Your task to perform on an android device: Open the stopwatch Image 0: 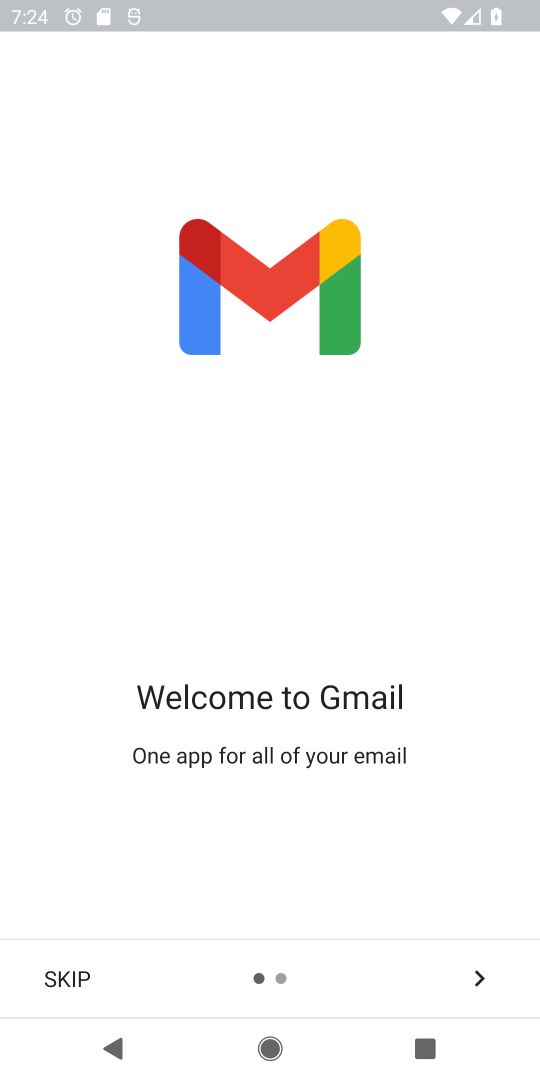
Step 0: press home button
Your task to perform on an android device: Open the stopwatch Image 1: 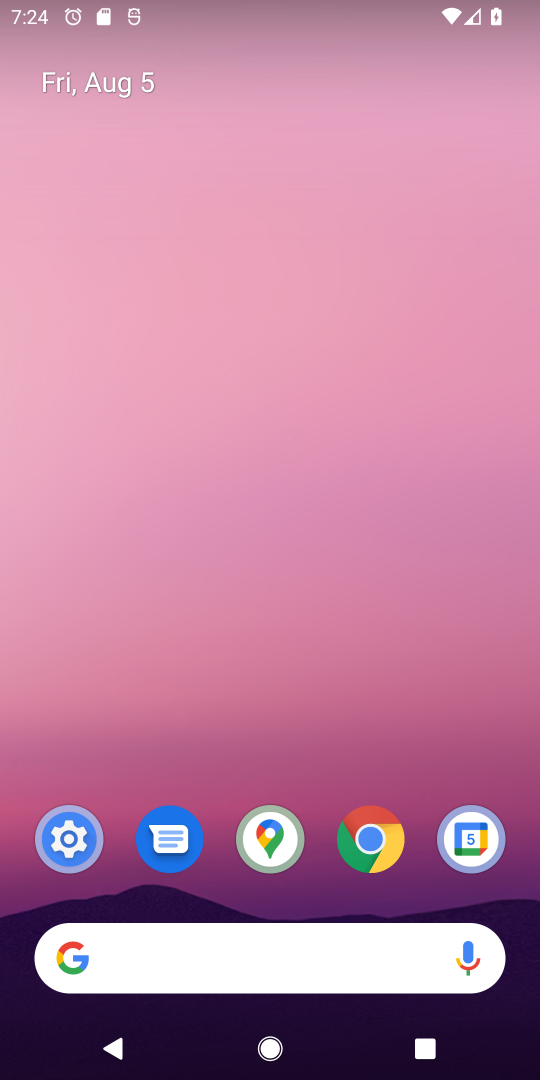
Step 1: drag from (287, 728) to (306, 124)
Your task to perform on an android device: Open the stopwatch Image 2: 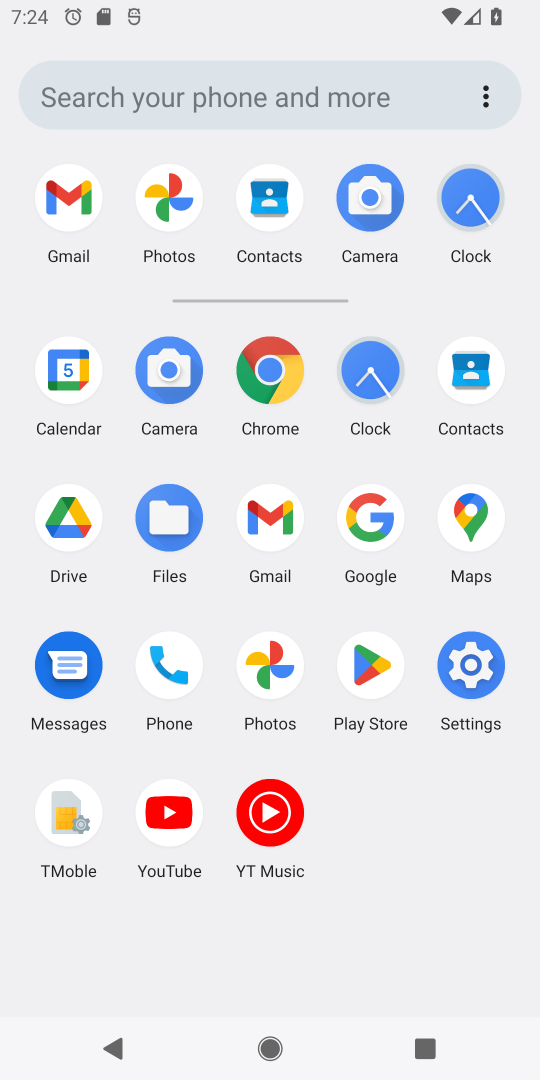
Step 2: click (455, 204)
Your task to perform on an android device: Open the stopwatch Image 3: 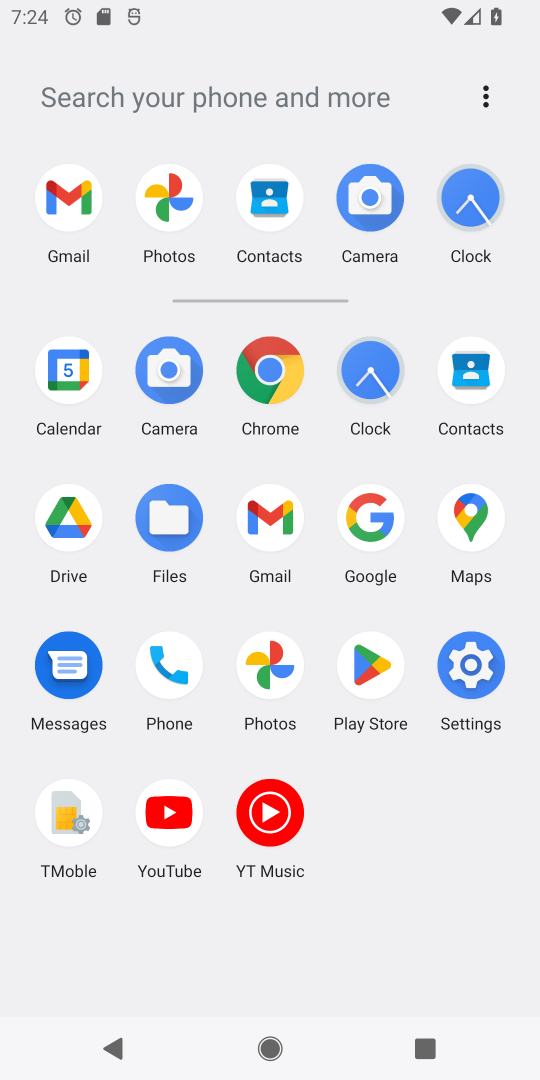
Step 3: click (461, 194)
Your task to perform on an android device: Open the stopwatch Image 4: 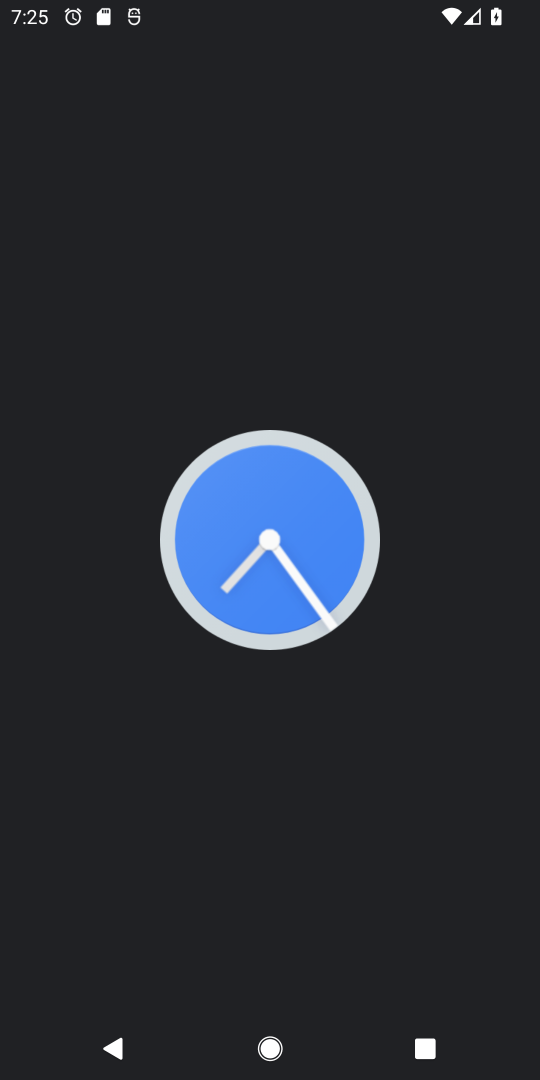
Step 4: task complete